Your task to perform on an android device: Show the shopping cart on walmart.com. Add sony triple a to the cart on walmart.com Image 0: 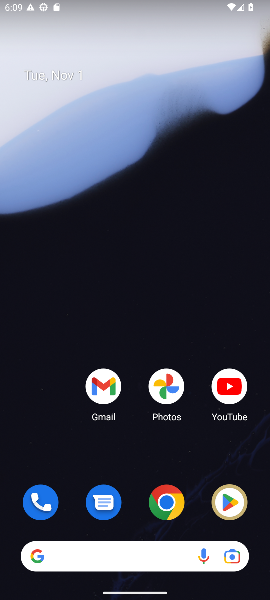
Step 0: click (124, 560)
Your task to perform on an android device: Show the shopping cart on walmart.com. Add sony triple a to the cart on walmart.com Image 1: 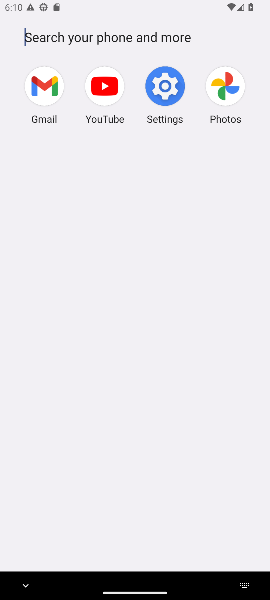
Step 1: type "google"
Your task to perform on an android device: Show the shopping cart on walmart.com. Add sony triple a to the cart on walmart.com Image 2: 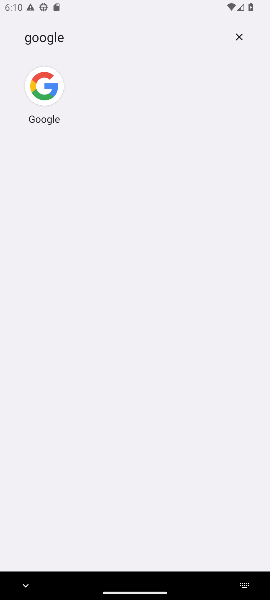
Step 2: click (42, 90)
Your task to perform on an android device: Show the shopping cart on walmart.com. Add sony triple a to the cart on walmart.com Image 3: 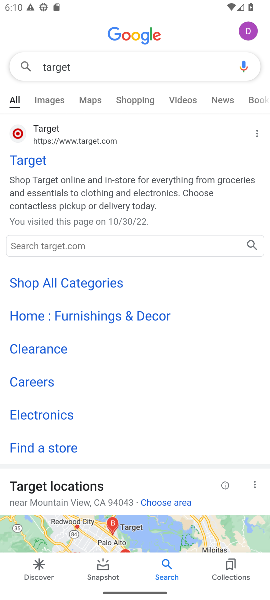
Step 3: click (85, 65)
Your task to perform on an android device: Show the shopping cart on walmart.com. Add sony triple a to the cart on walmart.com Image 4: 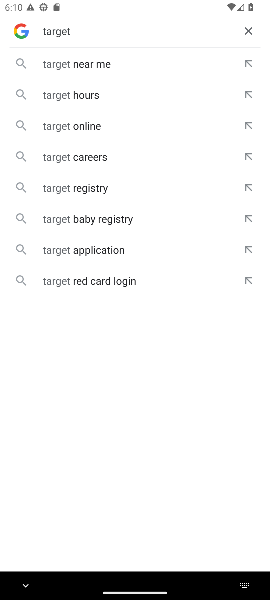
Step 4: click (246, 26)
Your task to perform on an android device: Show the shopping cart on walmart.com. Add sony triple a to the cart on walmart.com Image 5: 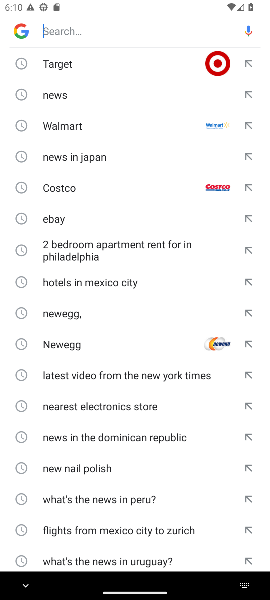
Step 5: click (64, 125)
Your task to perform on an android device: Show the shopping cart on walmart.com. Add sony triple a to the cart on walmart.com Image 6: 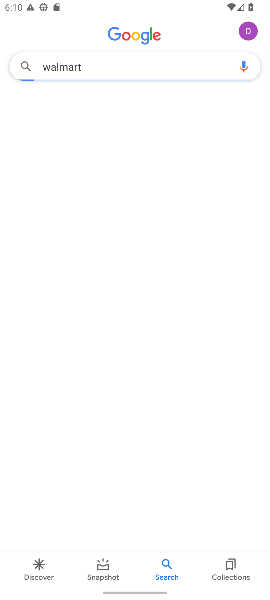
Step 6: click (64, 125)
Your task to perform on an android device: Show the shopping cart on walmart.com. Add sony triple a to the cart on walmart.com Image 7: 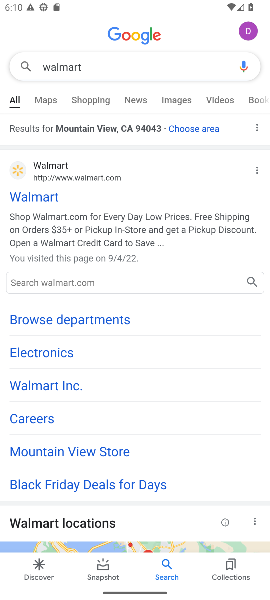
Step 7: click (36, 199)
Your task to perform on an android device: Show the shopping cart on walmart.com. Add sony triple a to the cart on walmart.com Image 8: 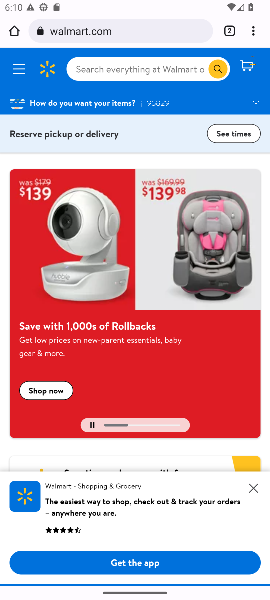
Step 8: click (142, 66)
Your task to perform on an android device: Show the shopping cart on walmart.com. Add sony triple a to the cart on walmart.com Image 9: 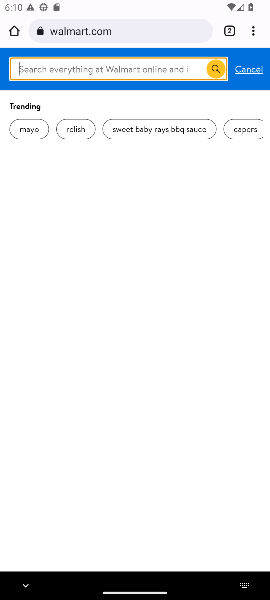
Step 9: type "sony triple a"
Your task to perform on an android device: Show the shopping cart on walmart.com. Add sony triple a to the cart on walmart.com Image 10: 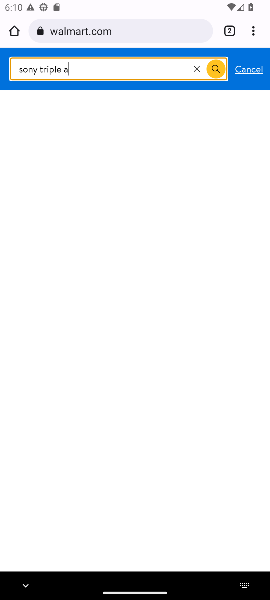
Step 10: click (215, 72)
Your task to perform on an android device: Show the shopping cart on walmart.com. Add sony triple a to the cart on walmart.com Image 11: 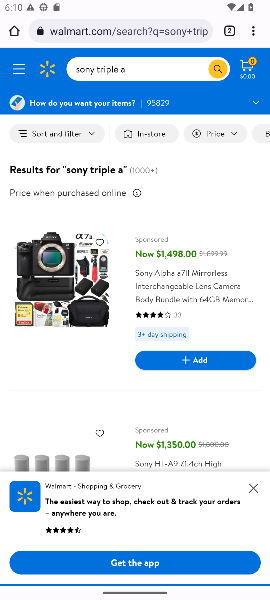
Step 11: click (251, 490)
Your task to perform on an android device: Show the shopping cart on walmart.com. Add sony triple a to the cart on walmart.com Image 12: 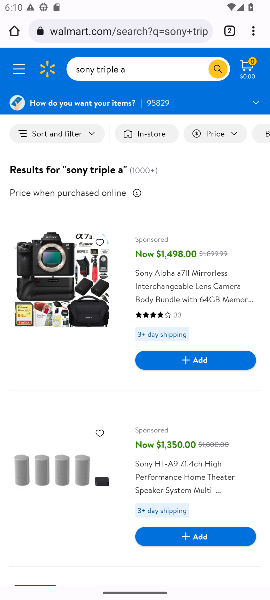
Step 12: click (191, 358)
Your task to perform on an android device: Show the shopping cart on walmart.com. Add sony triple a to the cart on walmart.com Image 13: 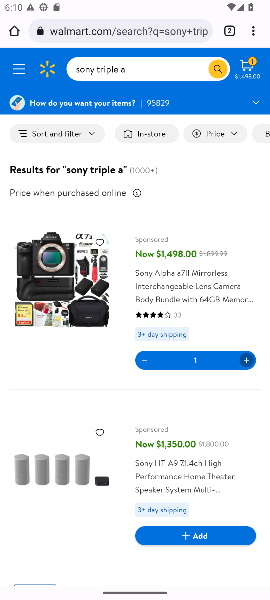
Step 13: task complete